Your task to perform on an android device: turn on showing notifications on the lock screen Image 0: 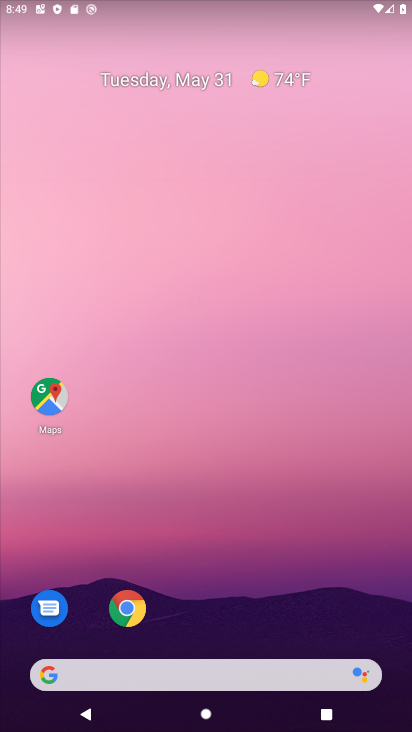
Step 0: drag from (196, 647) to (407, 360)
Your task to perform on an android device: turn on showing notifications on the lock screen Image 1: 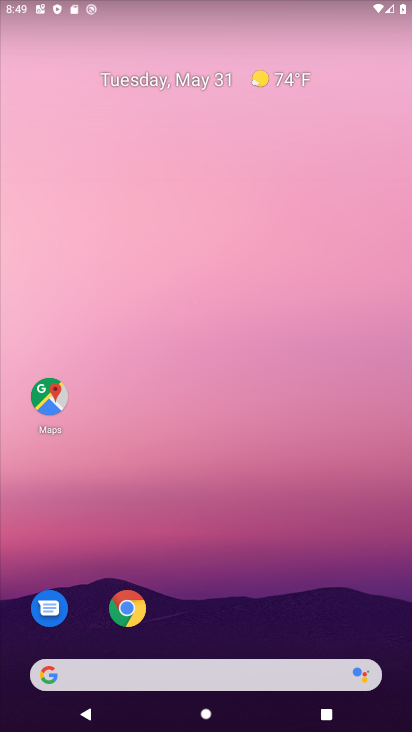
Step 1: drag from (223, 663) to (310, 41)
Your task to perform on an android device: turn on showing notifications on the lock screen Image 2: 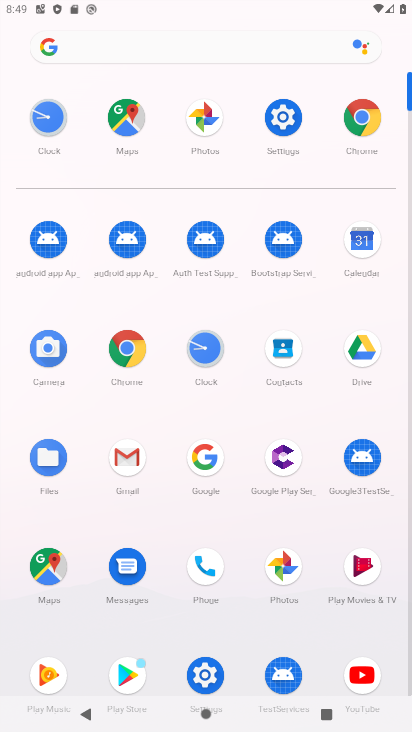
Step 2: click (286, 133)
Your task to perform on an android device: turn on showing notifications on the lock screen Image 3: 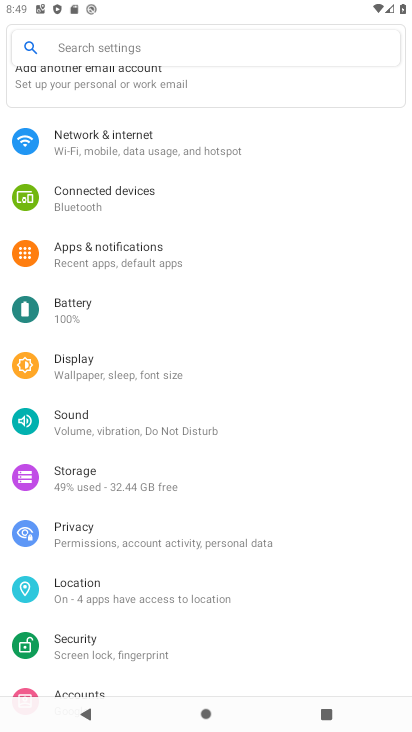
Step 3: click (91, 247)
Your task to perform on an android device: turn on showing notifications on the lock screen Image 4: 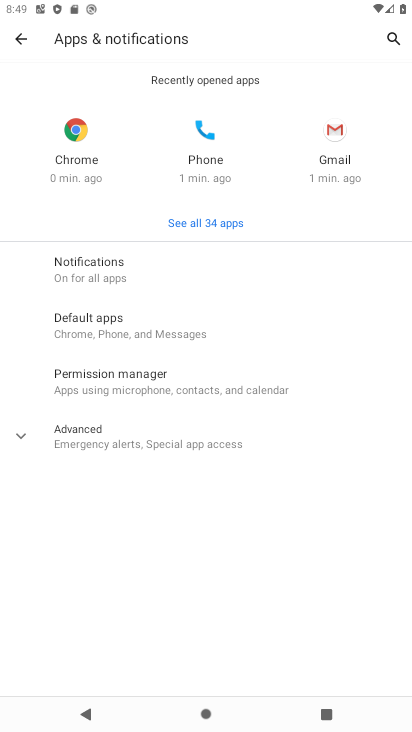
Step 4: click (100, 262)
Your task to perform on an android device: turn on showing notifications on the lock screen Image 5: 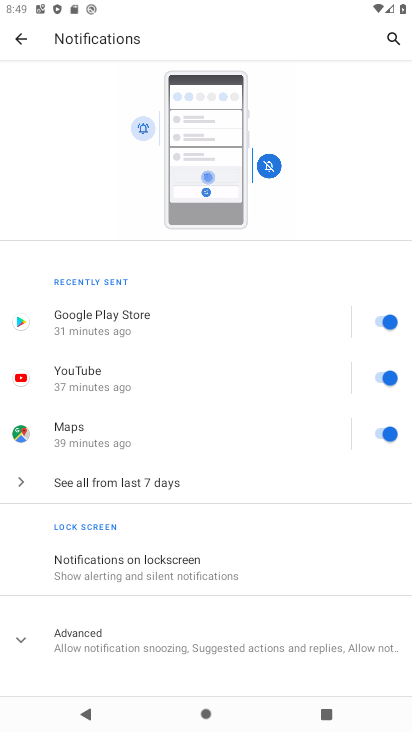
Step 5: click (225, 562)
Your task to perform on an android device: turn on showing notifications on the lock screen Image 6: 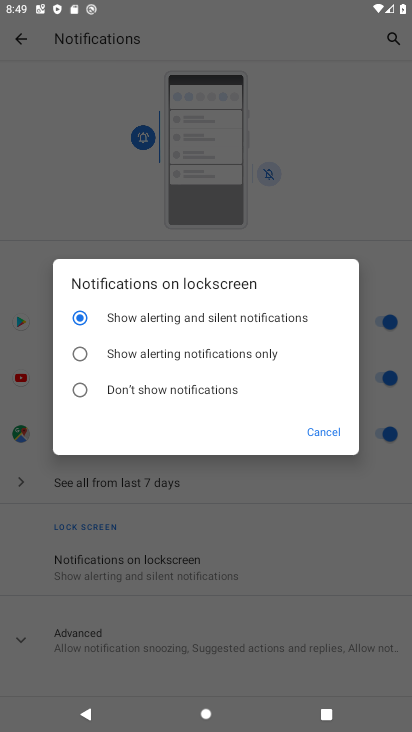
Step 6: task complete